Your task to perform on an android device: remove spam from my inbox in the gmail app Image 0: 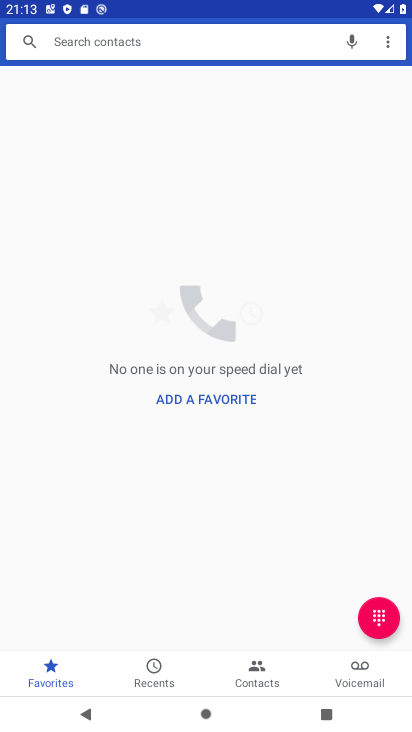
Step 0: press home button
Your task to perform on an android device: remove spam from my inbox in the gmail app Image 1: 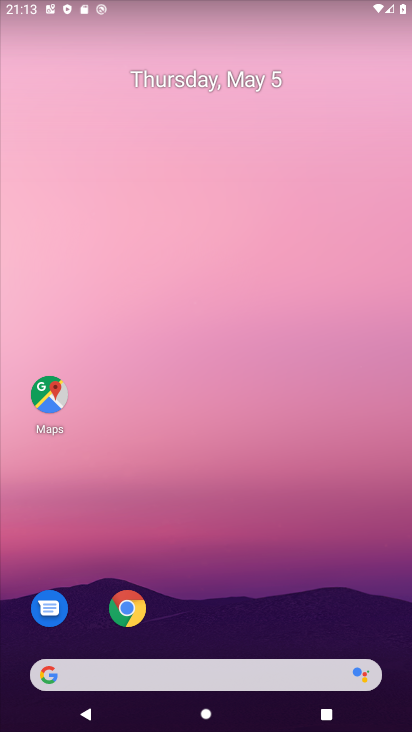
Step 1: drag from (295, 647) to (233, 69)
Your task to perform on an android device: remove spam from my inbox in the gmail app Image 2: 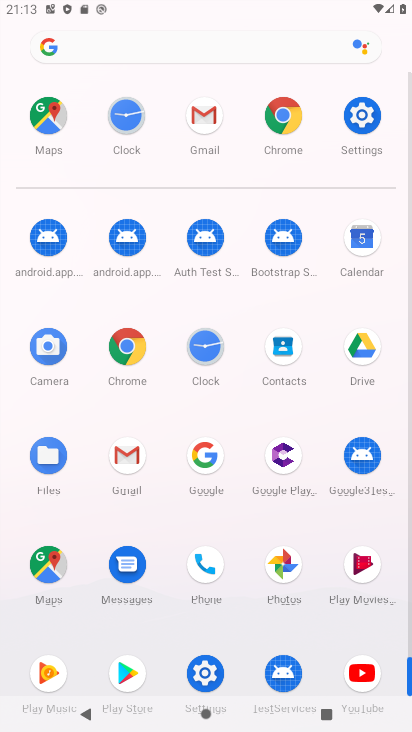
Step 2: click (136, 452)
Your task to perform on an android device: remove spam from my inbox in the gmail app Image 3: 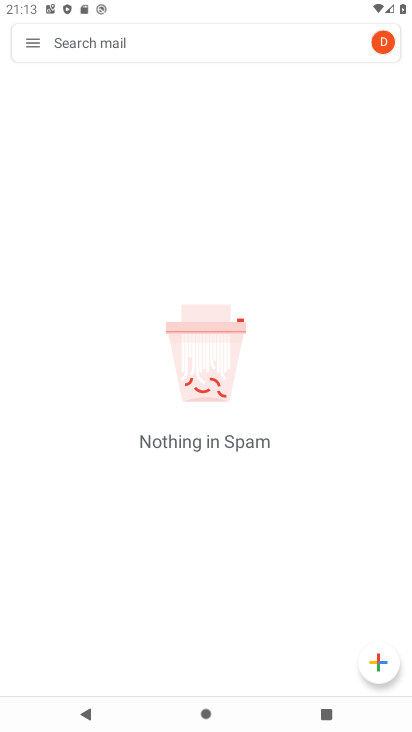
Step 3: drag from (26, 39) to (58, 207)
Your task to perform on an android device: remove spam from my inbox in the gmail app Image 4: 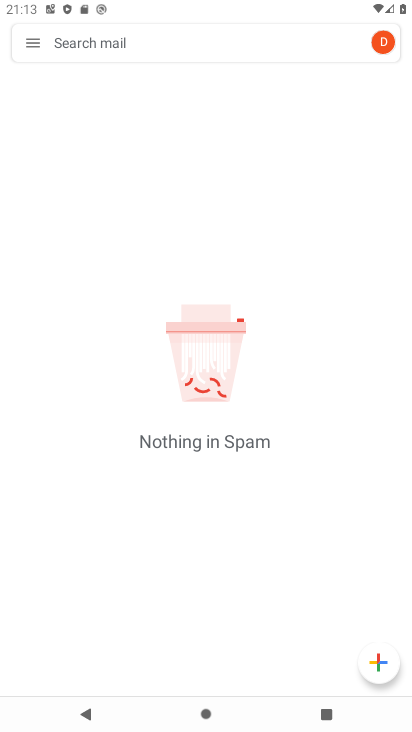
Step 4: click (33, 43)
Your task to perform on an android device: remove spam from my inbox in the gmail app Image 5: 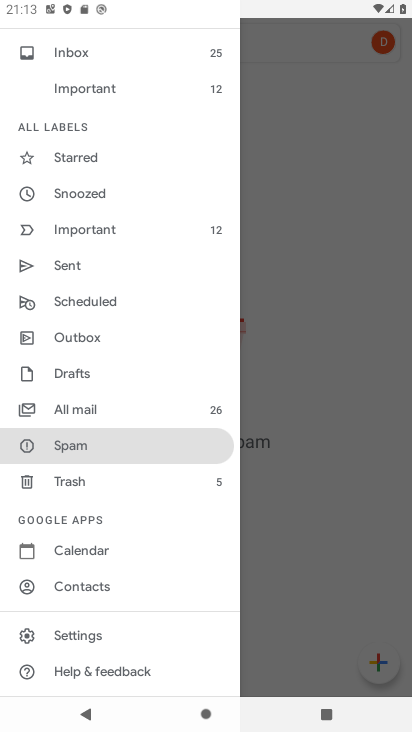
Step 5: click (91, 449)
Your task to perform on an android device: remove spam from my inbox in the gmail app Image 6: 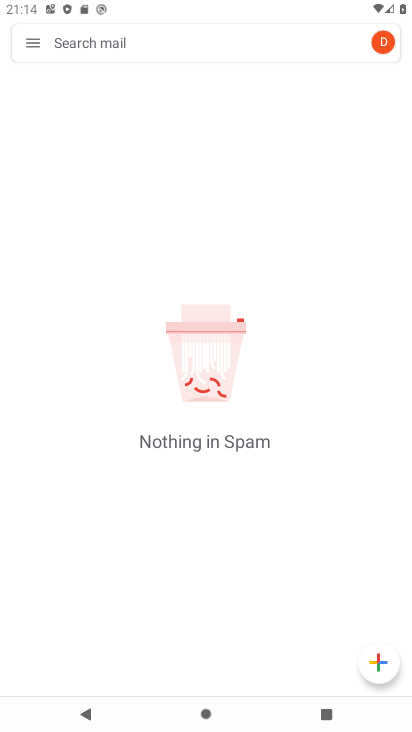
Step 6: task complete